Your task to perform on an android device: What's the weather going to be tomorrow? Image 0: 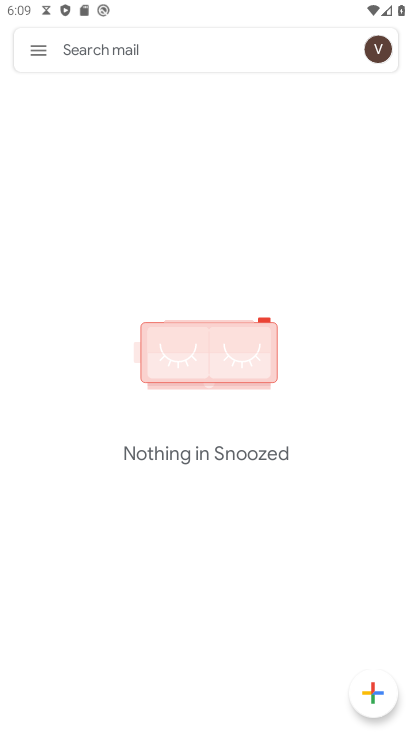
Step 0: press back button
Your task to perform on an android device: What's the weather going to be tomorrow? Image 1: 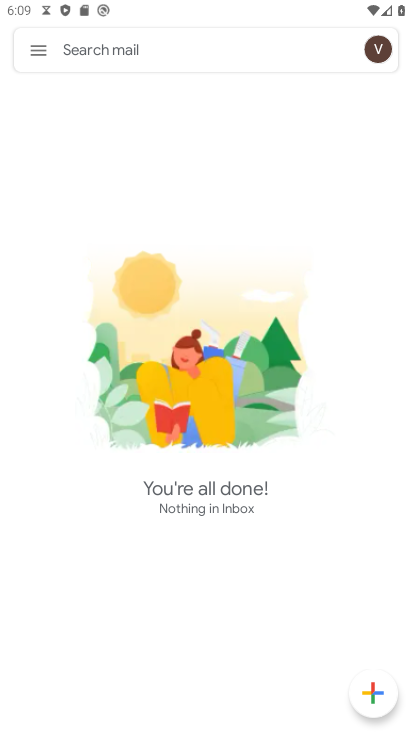
Step 1: press home button
Your task to perform on an android device: What's the weather going to be tomorrow? Image 2: 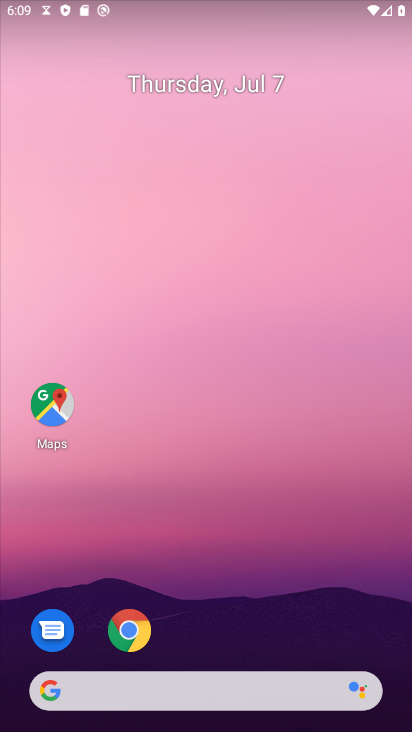
Step 2: drag from (176, 637) to (200, 234)
Your task to perform on an android device: What's the weather going to be tomorrow? Image 3: 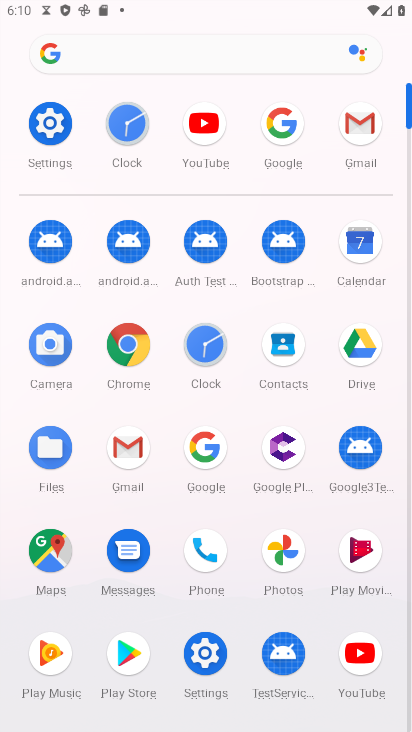
Step 3: drag from (226, 523) to (233, 249)
Your task to perform on an android device: What's the weather going to be tomorrow? Image 4: 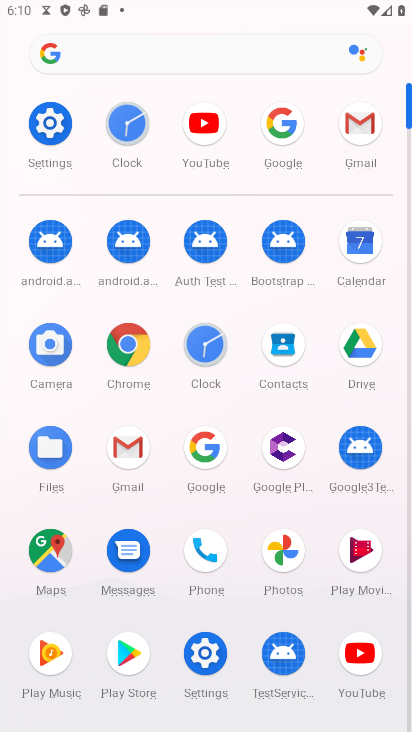
Step 4: click (198, 451)
Your task to perform on an android device: What's the weather going to be tomorrow? Image 5: 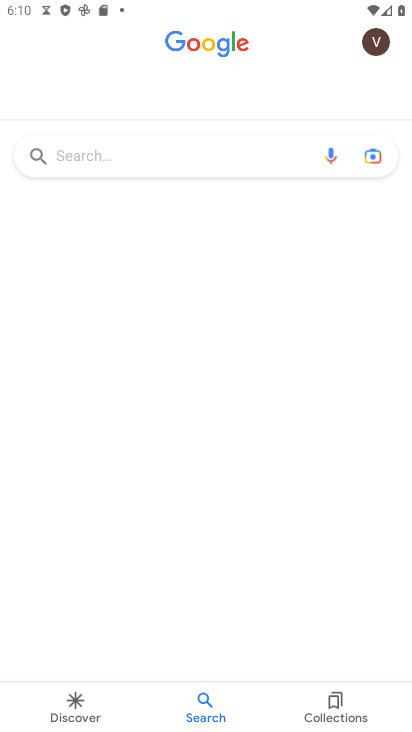
Step 5: click (173, 153)
Your task to perform on an android device: What's the weather going to be tomorrow? Image 6: 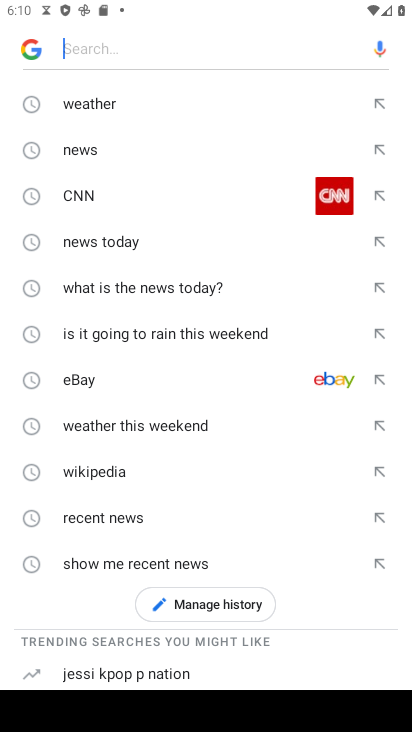
Step 6: click (83, 99)
Your task to perform on an android device: What's the weather going to be tomorrow? Image 7: 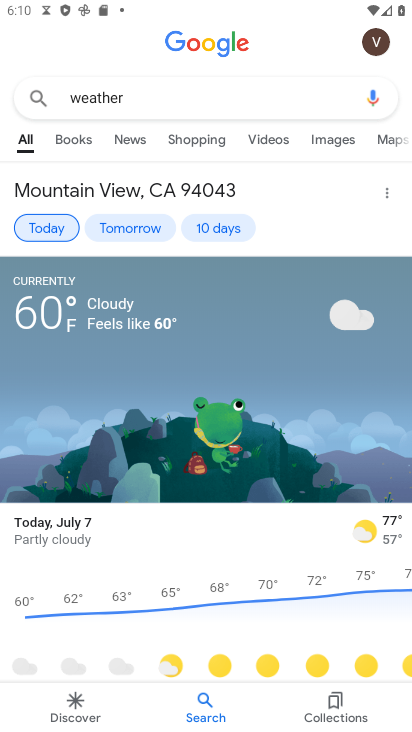
Step 7: task complete